Your task to perform on an android device: turn on javascript in the chrome app Image 0: 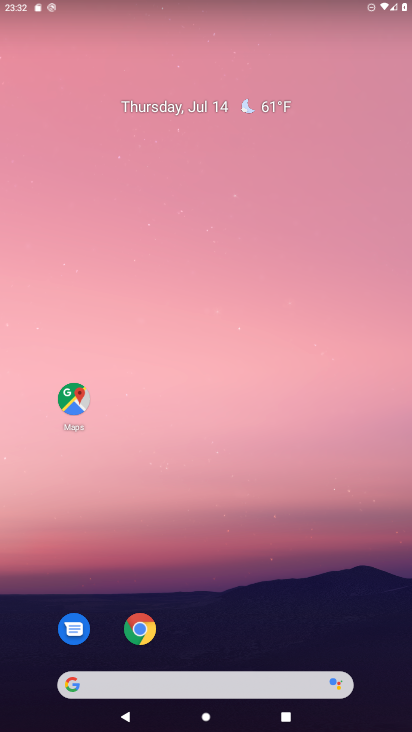
Step 0: click (142, 622)
Your task to perform on an android device: turn on javascript in the chrome app Image 1: 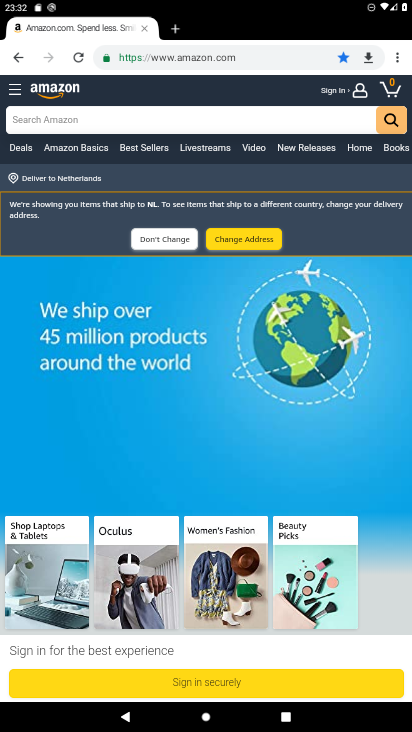
Step 1: click (405, 53)
Your task to perform on an android device: turn on javascript in the chrome app Image 2: 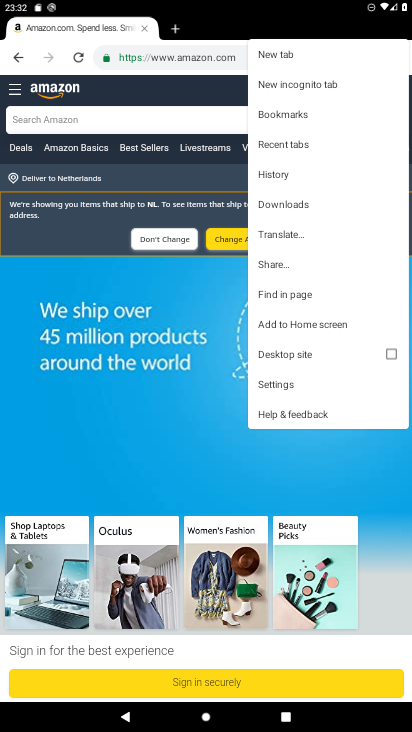
Step 2: click (313, 385)
Your task to perform on an android device: turn on javascript in the chrome app Image 3: 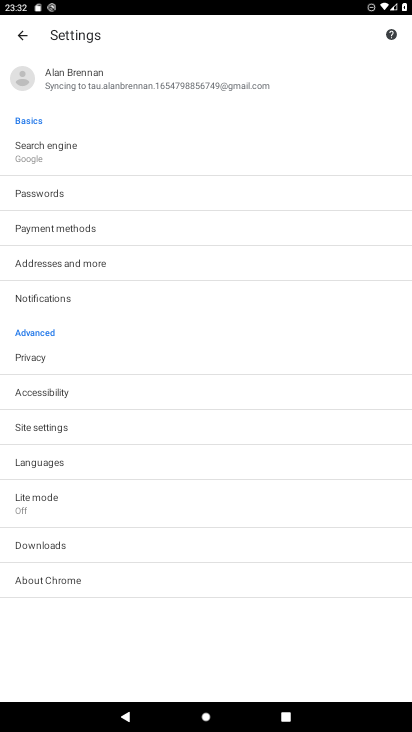
Step 3: click (60, 428)
Your task to perform on an android device: turn on javascript in the chrome app Image 4: 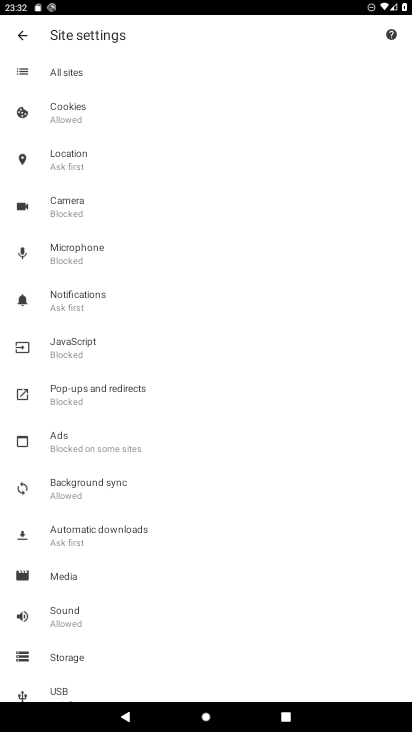
Step 4: click (112, 352)
Your task to perform on an android device: turn on javascript in the chrome app Image 5: 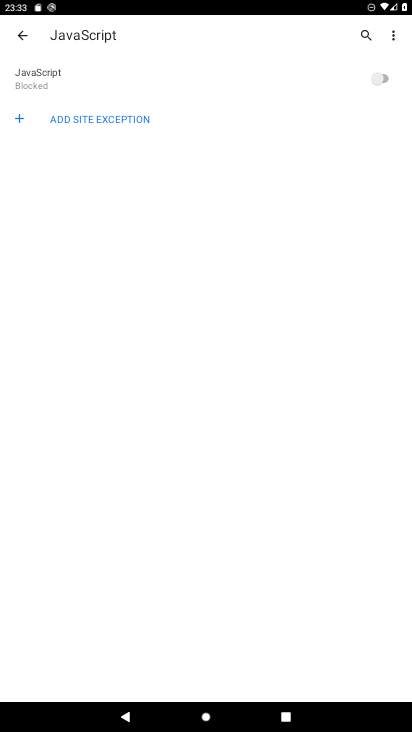
Step 5: task complete